Your task to perform on an android device: check battery use Image 0: 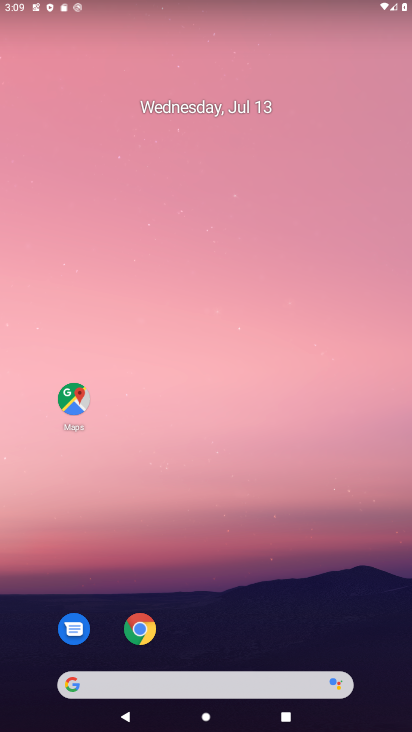
Step 0: drag from (270, 10) to (295, 332)
Your task to perform on an android device: check battery use Image 1: 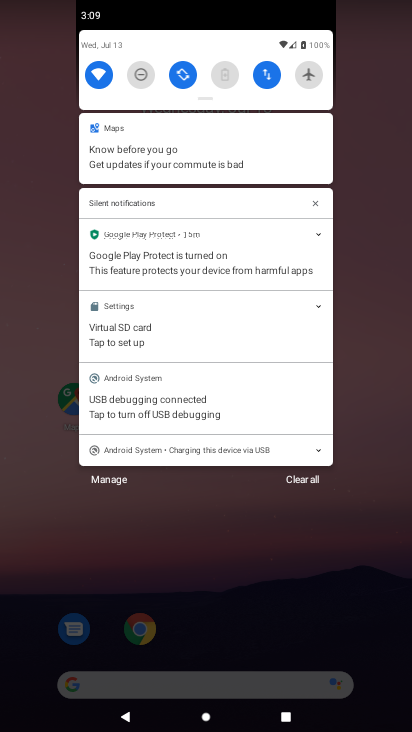
Step 1: drag from (270, 100) to (294, 365)
Your task to perform on an android device: check battery use Image 2: 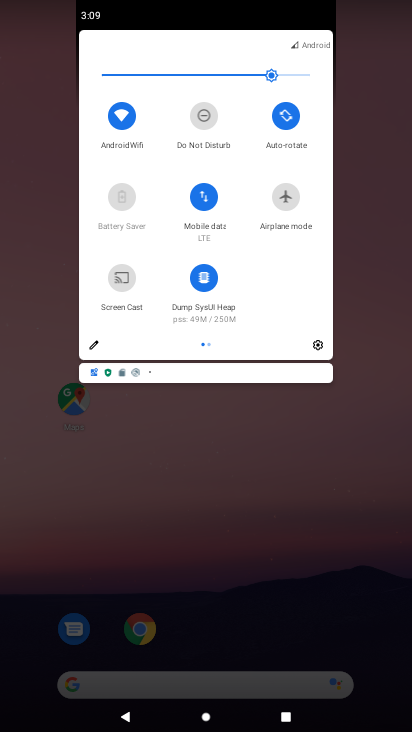
Step 2: click (316, 343)
Your task to perform on an android device: check battery use Image 3: 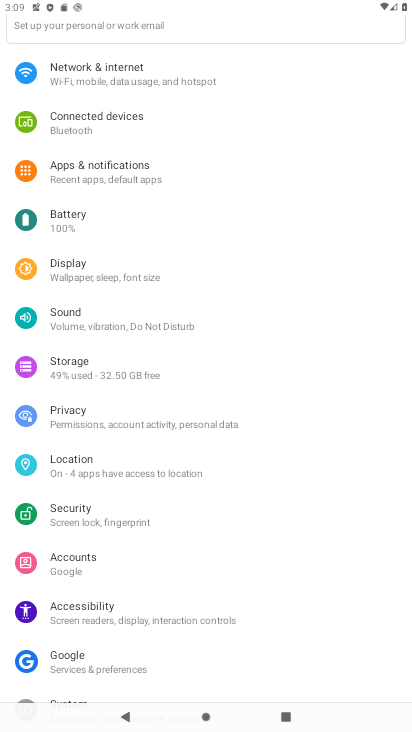
Step 3: click (113, 222)
Your task to perform on an android device: check battery use Image 4: 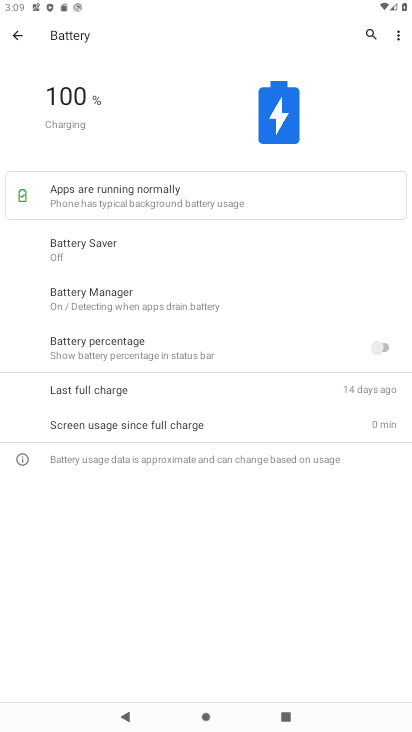
Step 4: click (397, 29)
Your task to perform on an android device: check battery use Image 5: 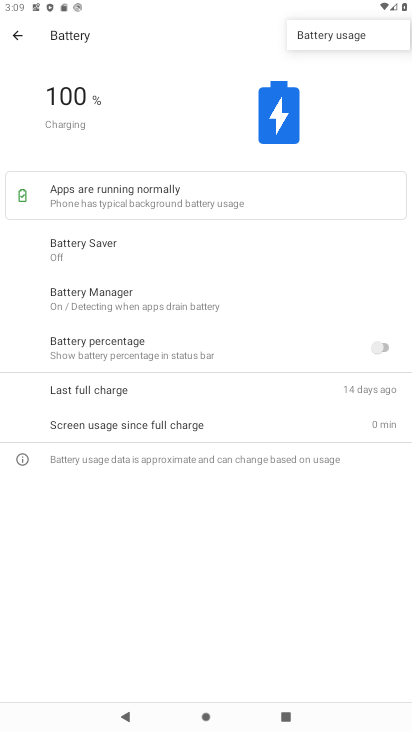
Step 5: click (331, 33)
Your task to perform on an android device: check battery use Image 6: 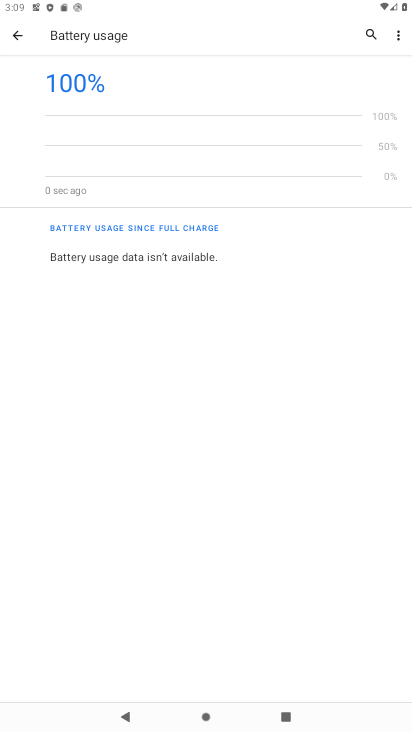
Step 6: task complete